Your task to perform on an android device: add a contact in the contacts app Image 0: 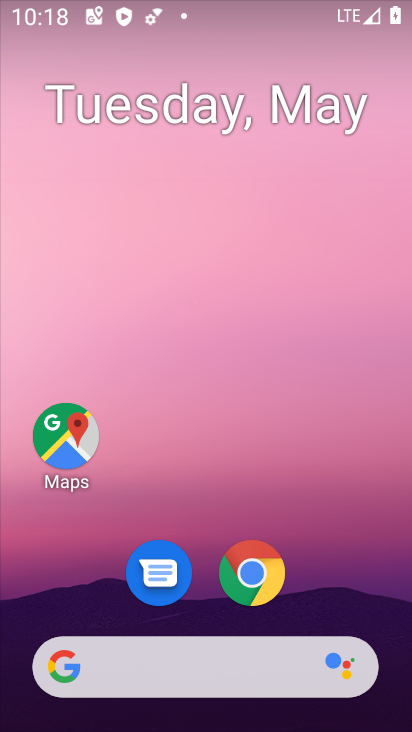
Step 0: drag from (140, 720) to (147, 79)
Your task to perform on an android device: add a contact in the contacts app Image 1: 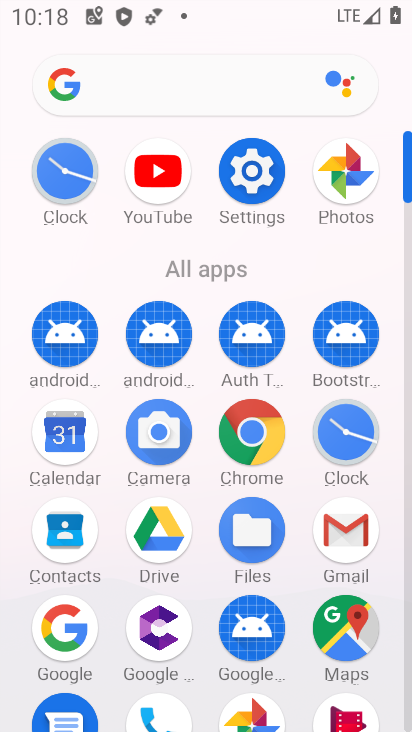
Step 1: click (55, 544)
Your task to perform on an android device: add a contact in the contacts app Image 2: 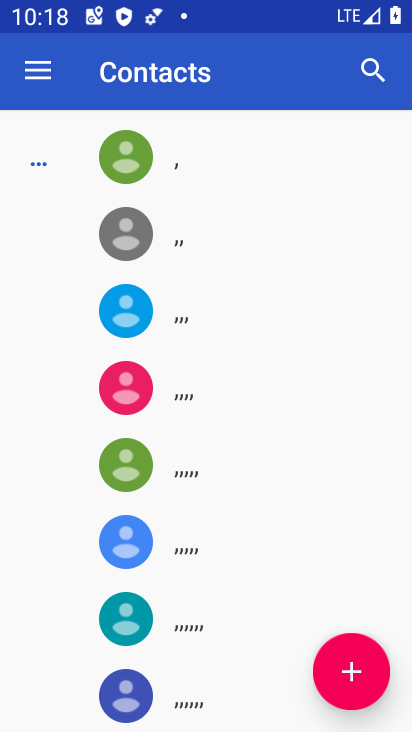
Step 2: click (361, 683)
Your task to perform on an android device: add a contact in the contacts app Image 3: 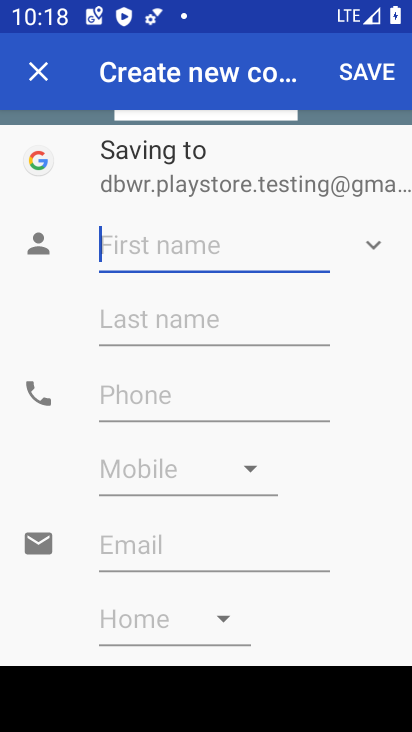
Step 3: click (225, 246)
Your task to perform on an android device: add a contact in the contacts app Image 4: 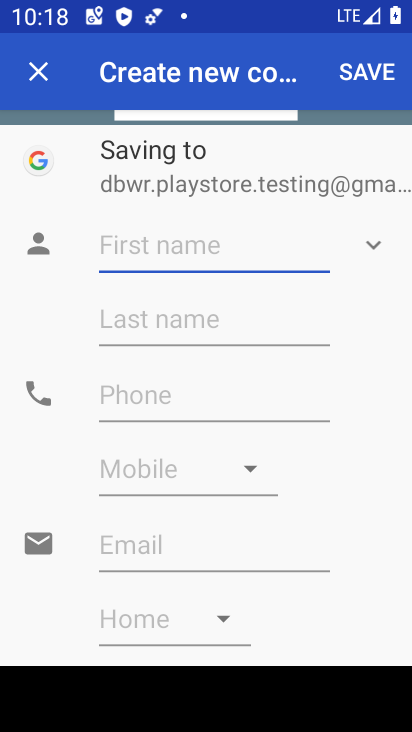
Step 4: type "hjgfddd"
Your task to perform on an android device: add a contact in the contacts app Image 5: 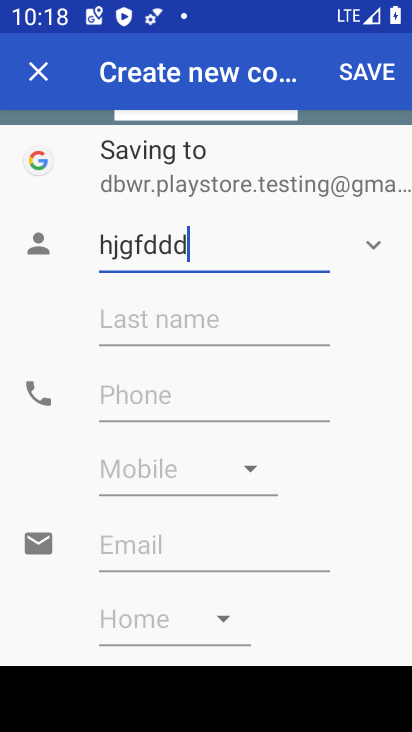
Step 5: click (216, 402)
Your task to perform on an android device: add a contact in the contacts app Image 6: 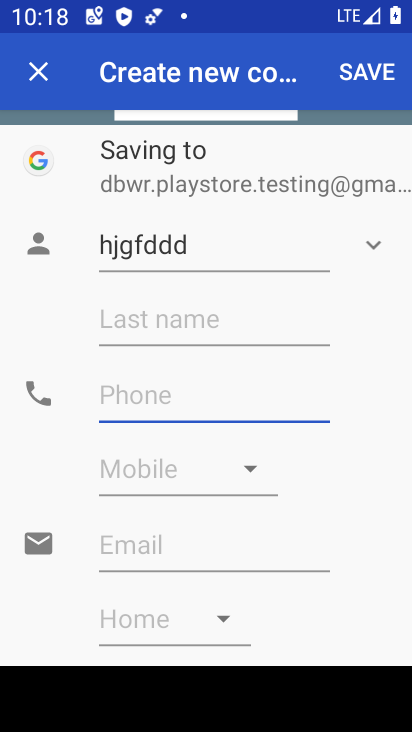
Step 6: type "9875432176"
Your task to perform on an android device: add a contact in the contacts app Image 7: 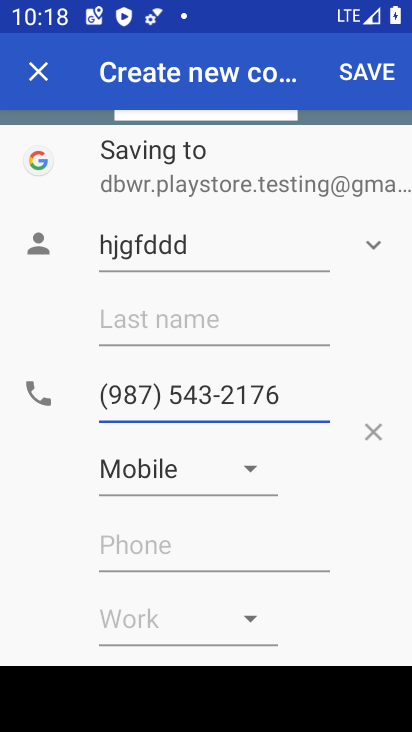
Step 7: click (362, 66)
Your task to perform on an android device: add a contact in the contacts app Image 8: 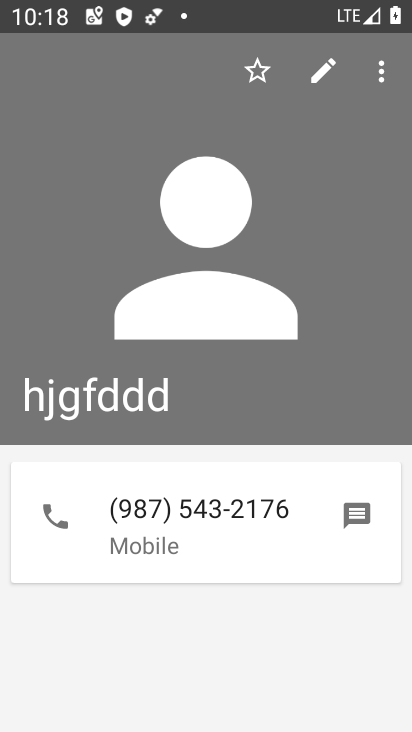
Step 8: task complete